Your task to perform on an android device: Open Wikipedia Image 0: 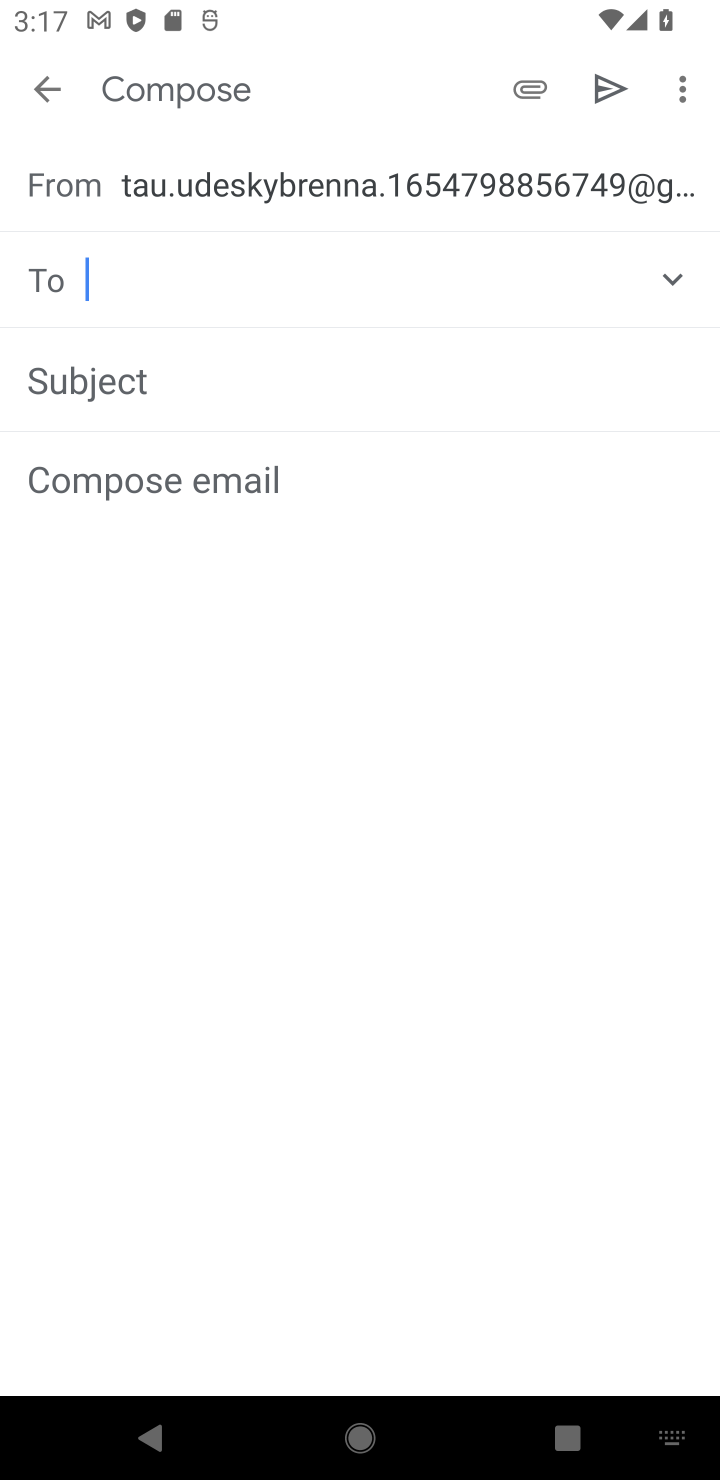
Step 0: press home button
Your task to perform on an android device: Open Wikipedia Image 1: 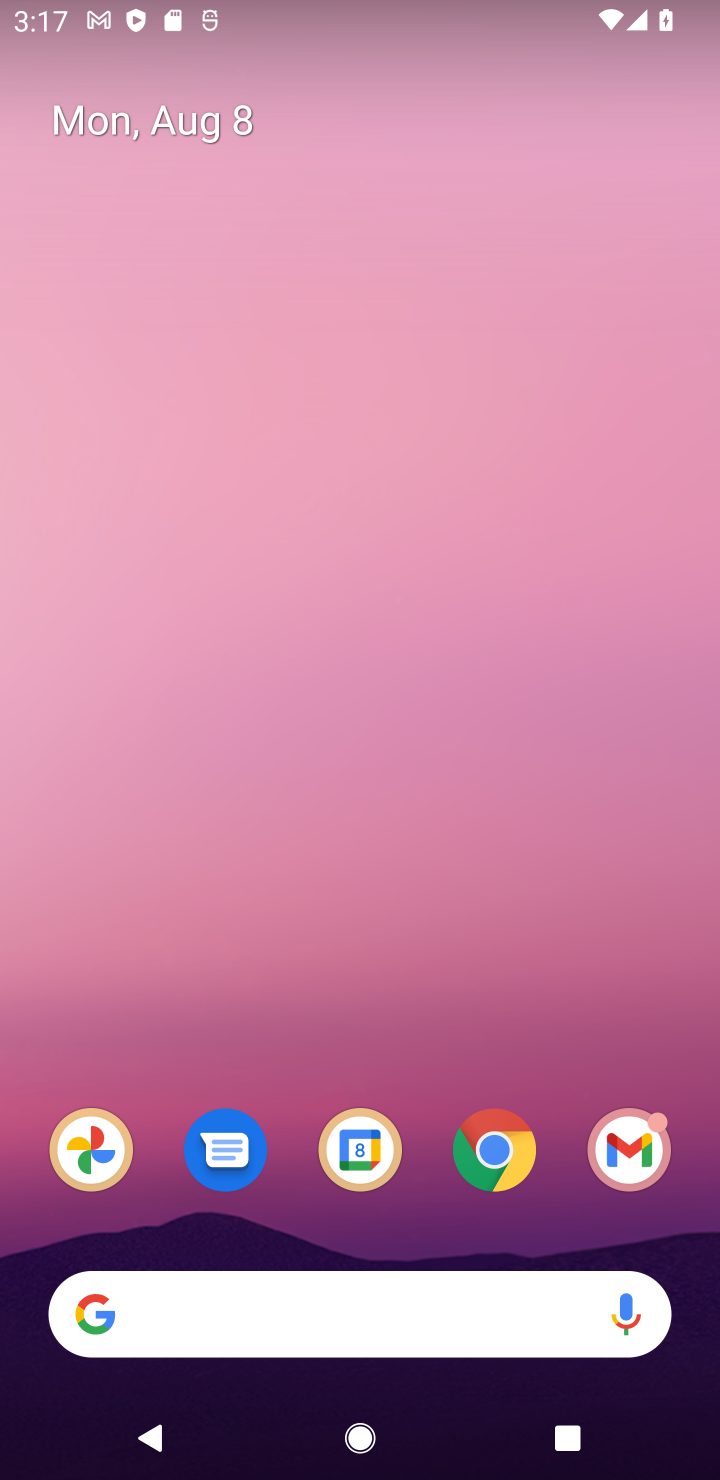
Step 1: click (541, 1136)
Your task to perform on an android device: Open Wikipedia Image 2: 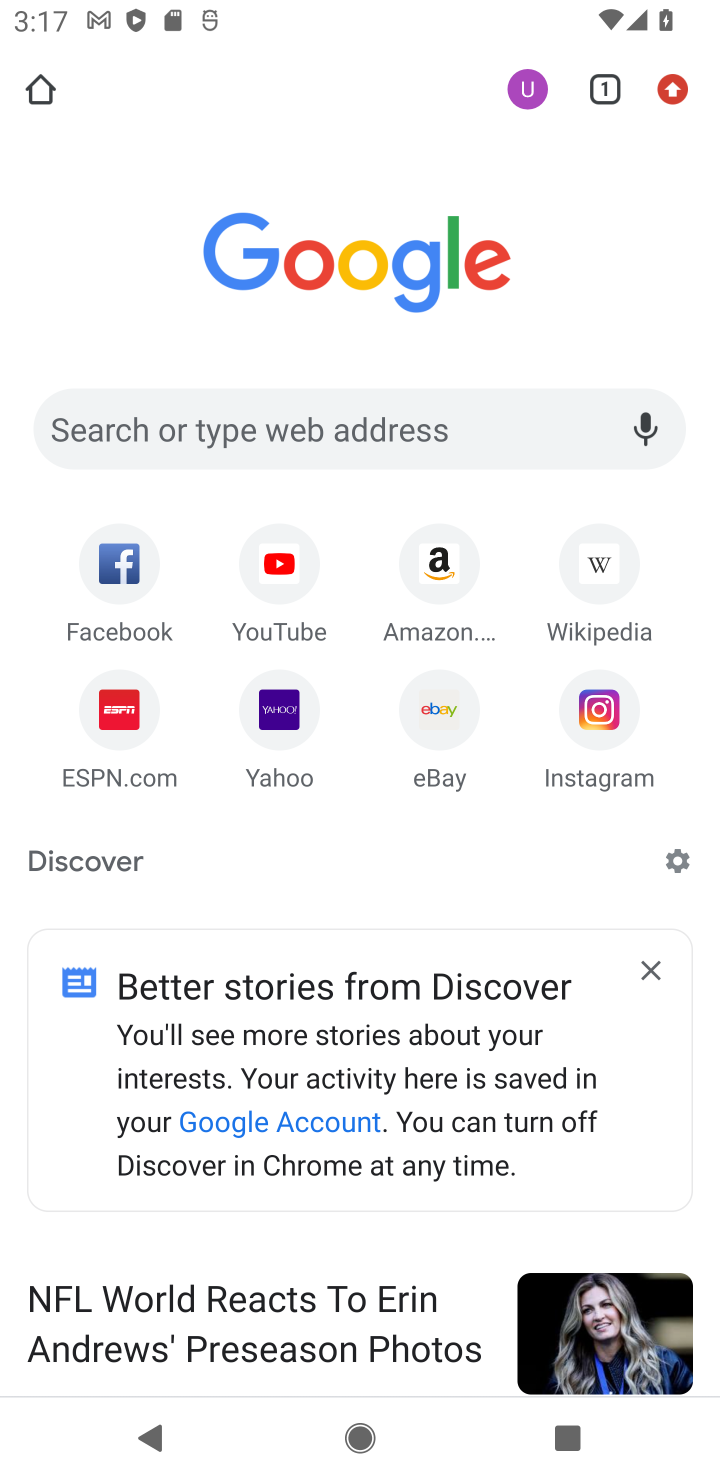
Step 2: click (527, 618)
Your task to perform on an android device: Open Wikipedia Image 3: 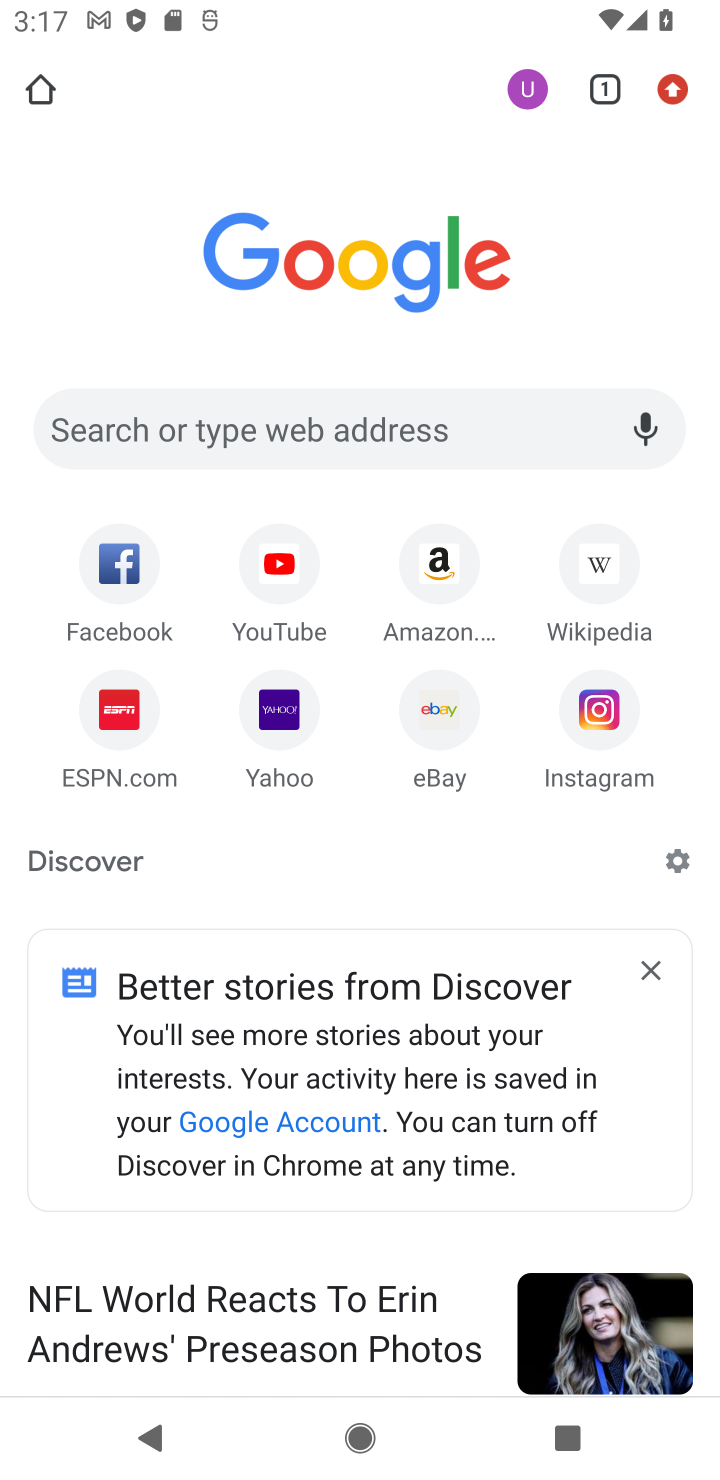
Step 3: task complete